Your task to perform on an android device: View the shopping cart on ebay.com. Add "razer nari" to the cart on ebay.com, then select checkout. Image 0: 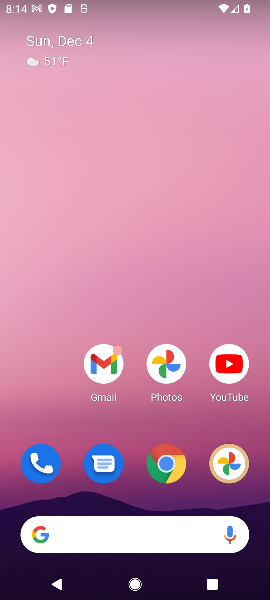
Step 0: click (181, 538)
Your task to perform on an android device: View the shopping cart on ebay.com. Add "razer nari" to the cart on ebay.com, then select checkout. Image 1: 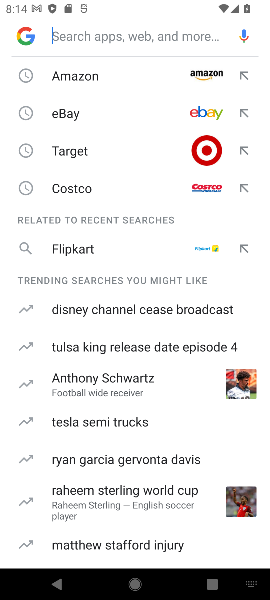
Step 1: click (44, 125)
Your task to perform on an android device: View the shopping cart on ebay.com. Add "razer nari" to the cart on ebay.com, then select checkout. Image 2: 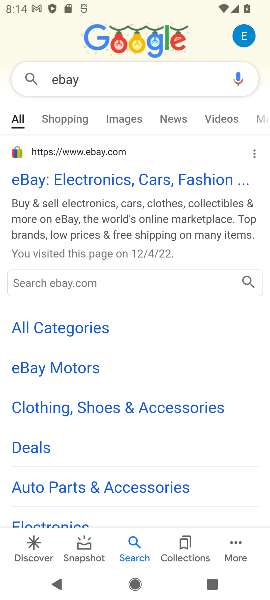
Step 2: click (68, 162)
Your task to perform on an android device: View the shopping cart on ebay.com. Add "razer nari" to the cart on ebay.com, then select checkout. Image 3: 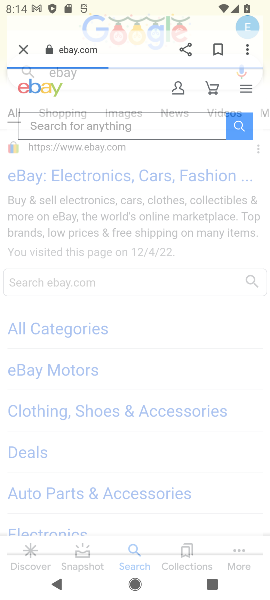
Step 3: task complete